Your task to perform on an android device: check out phone information Image 0: 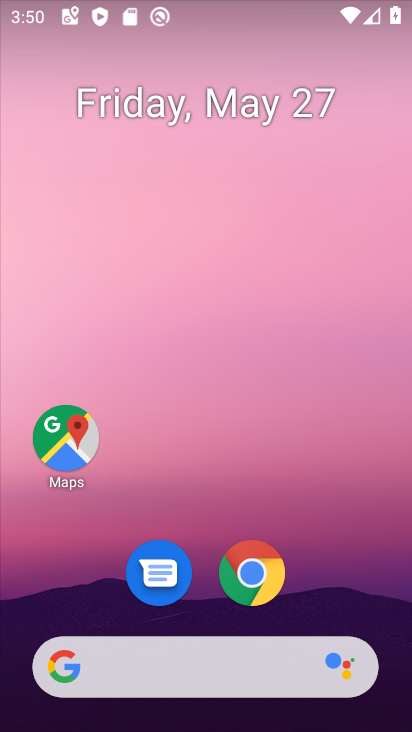
Step 0: drag from (307, 561) to (319, 58)
Your task to perform on an android device: check out phone information Image 1: 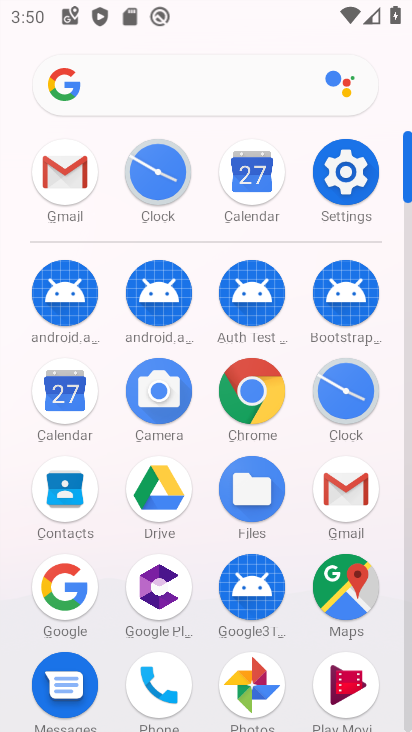
Step 1: drag from (198, 514) to (205, 295)
Your task to perform on an android device: check out phone information Image 2: 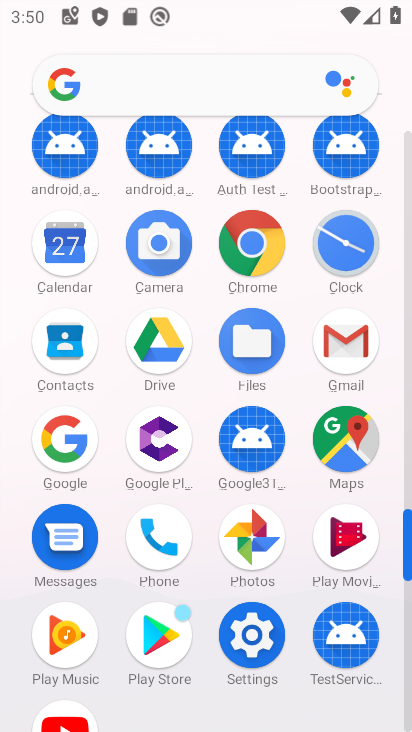
Step 2: click (183, 520)
Your task to perform on an android device: check out phone information Image 3: 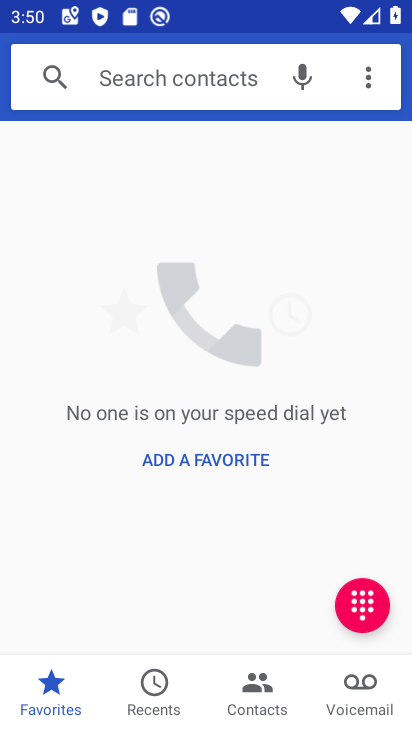
Step 3: click (369, 70)
Your task to perform on an android device: check out phone information Image 4: 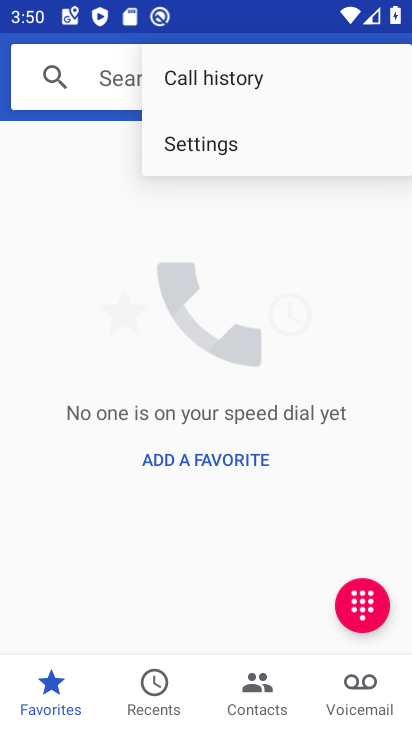
Step 4: click (308, 156)
Your task to perform on an android device: check out phone information Image 5: 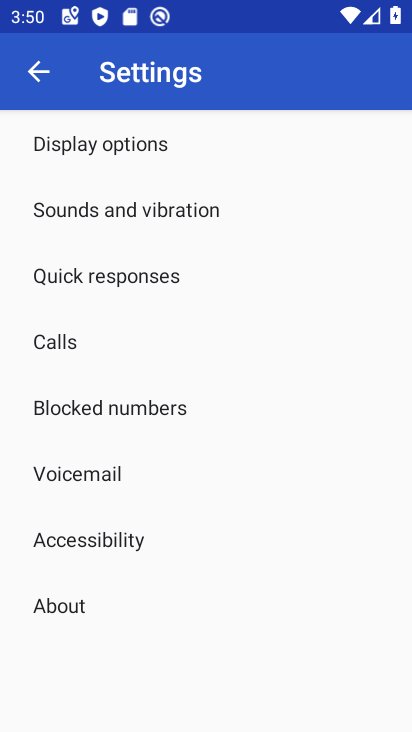
Step 5: click (77, 606)
Your task to perform on an android device: check out phone information Image 6: 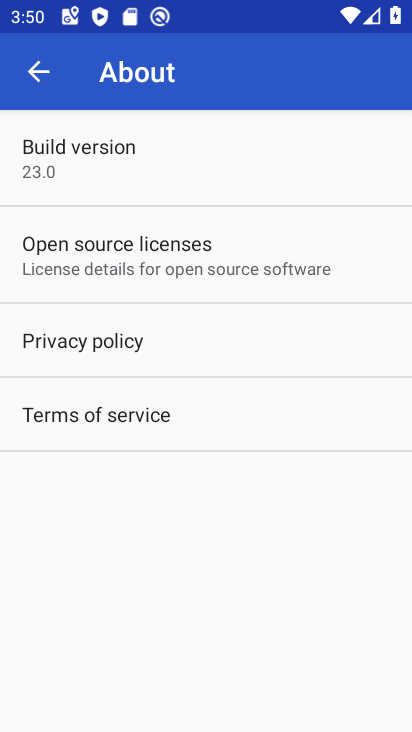
Step 6: task complete